Your task to perform on an android device: Open accessibility settings Image 0: 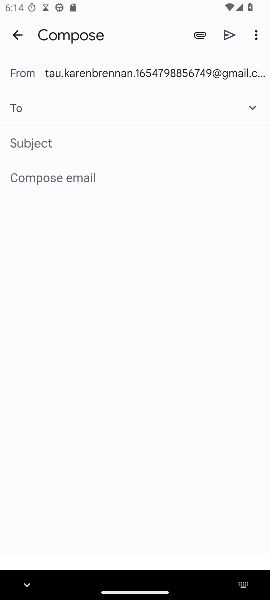
Step 0: press home button
Your task to perform on an android device: Open accessibility settings Image 1: 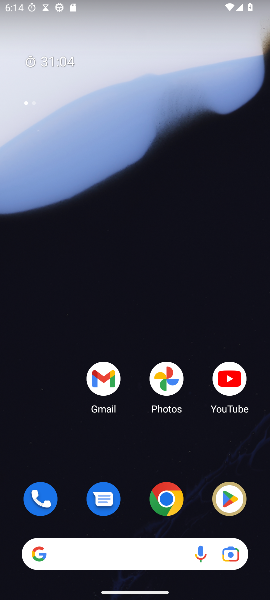
Step 1: drag from (96, 405) to (42, 99)
Your task to perform on an android device: Open accessibility settings Image 2: 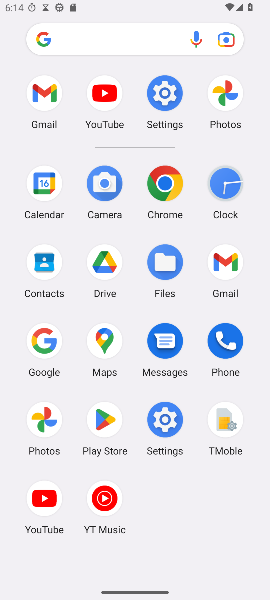
Step 2: click (160, 90)
Your task to perform on an android device: Open accessibility settings Image 3: 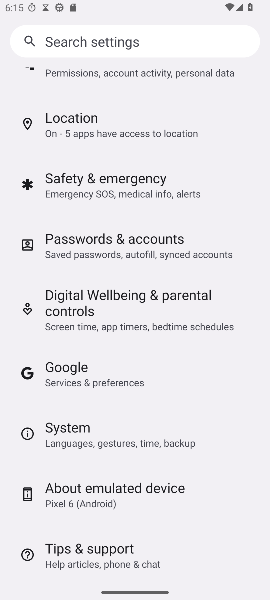
Step 3: click (159, 89)
Your task to perform on an android device: Open accessibility settings Image 4: 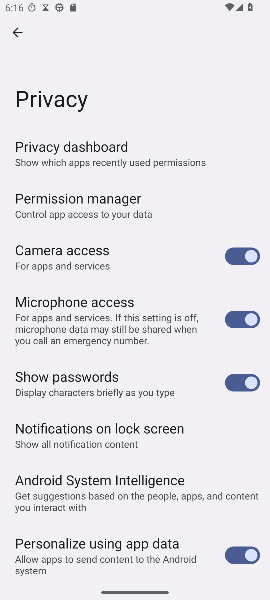
Step 4: click (10, 35)
Your task to perform on an android device: Open accessibility settings Image 5: 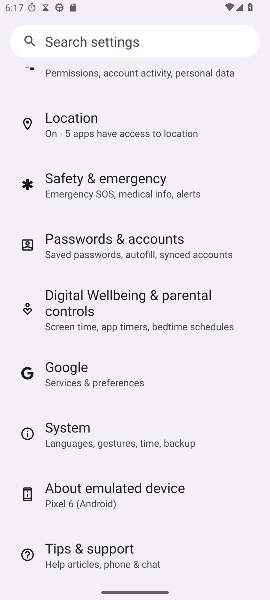
Step 5: drag from (113, 526) to (119, 159)
Your task to perform on an android device: Open accessibility settings Image 6: 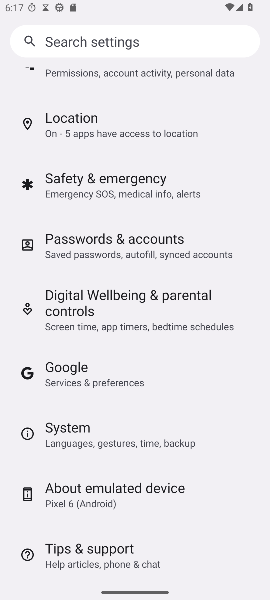
Step 6: drag from (115, 110) to (217, 515)
Your task to perform on an android device: Open accessibility settings Image 7: 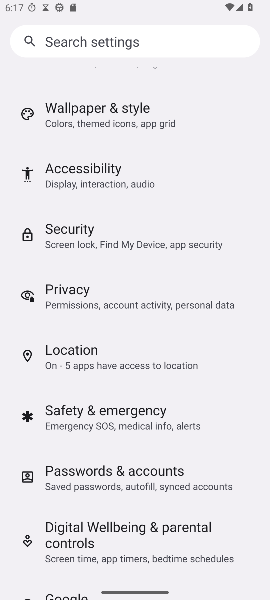
Step 7: click (84, 187)
Your task to perform on an android device: Open accessibility settings Image 8: 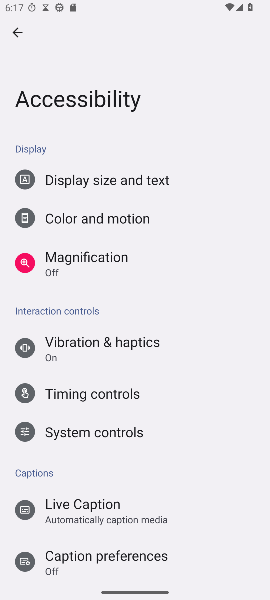
Step 8: task complete